Your task to perform on an android device: turn on airplane mode Image 0: 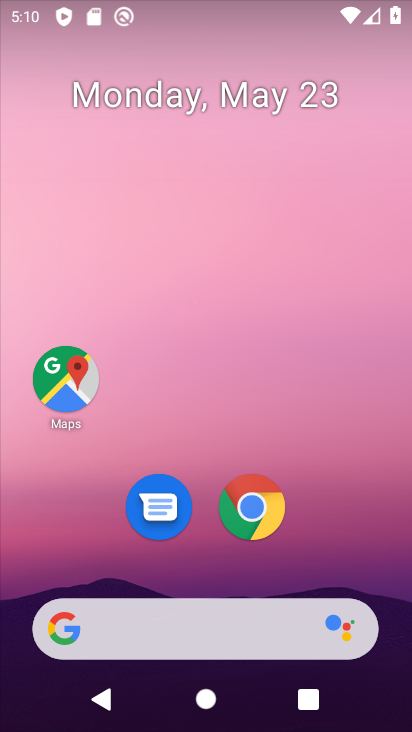
Step 0: drag from (285, 7) to (291, 353)
Your task to perform on an android device: turn on airplane mode Image 1: 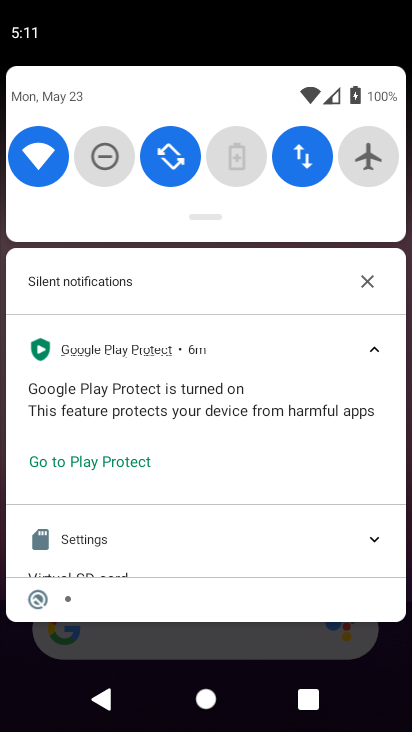
Step 1: click (363, 164)
Your task to perform on an android device: turn on airplane mode Image 2: 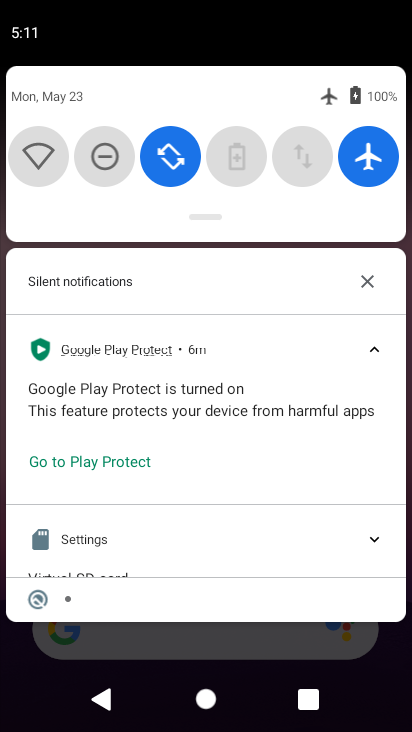
Step 2: task complete